Your task to perform on an android device: What is the recent news? Image 0: 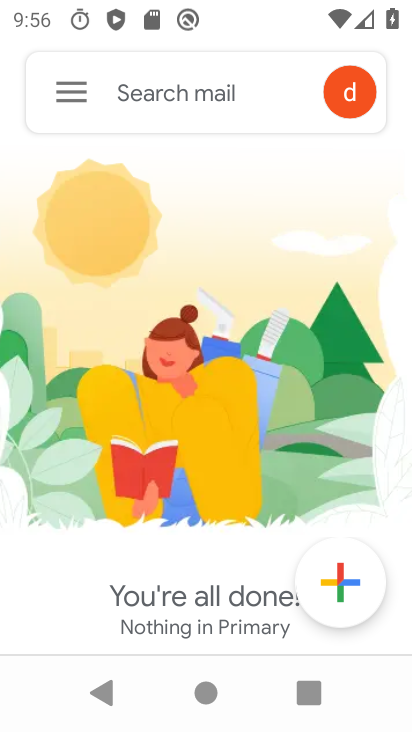
Step 0: drag from (211, 640) to (137, 228)
Your task to perform on an android device: What is the recent news? Image 1: 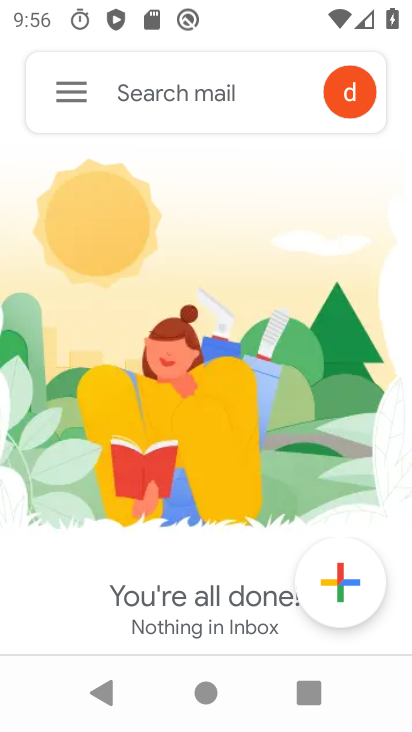
Step 1: press back button
Your task to perform on an android device: What is the recent news? Image 2: 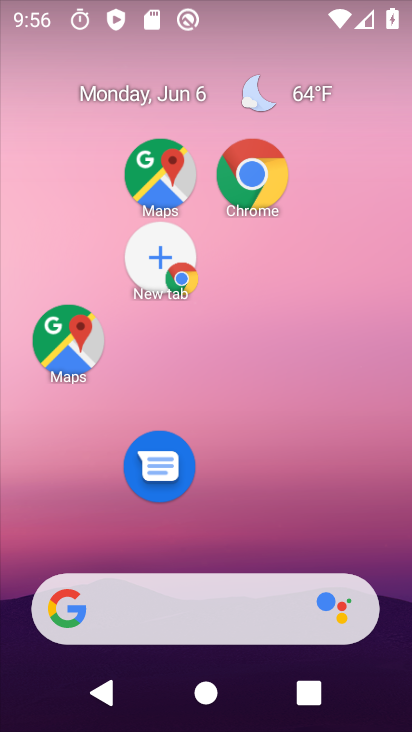
Step 2: drag from (7, 258) to (405, 349)
Your task to perform on an android device: What is the recent news? Image 3: 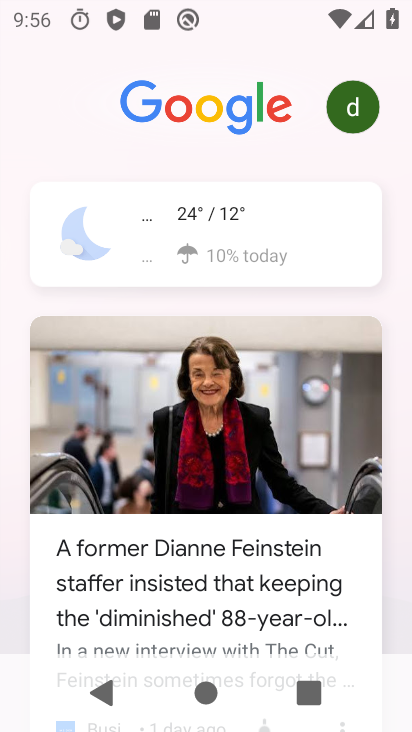
Step 3: drag from (204, 528) to (228, 177)
Your task to perform on an android device: What is the recent news? Image 4: 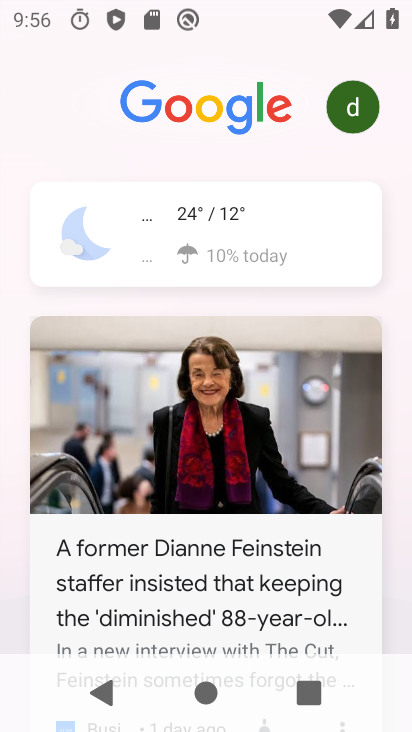
Step 4: drag from (210, 532) to (184, 298)
Your task to perform on an android device: What is the recent news? Image 5: 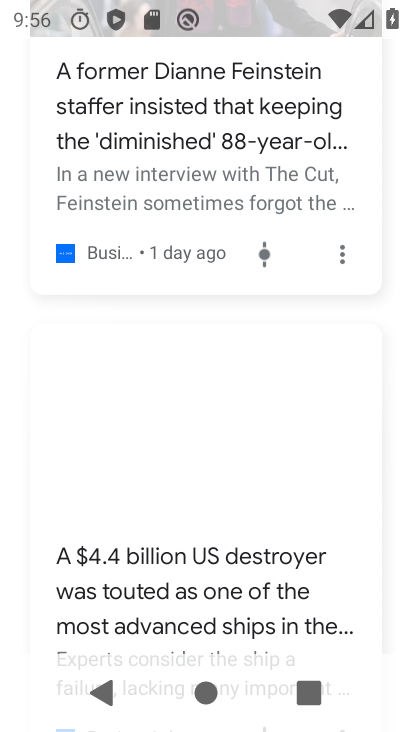
Step 5: drag from (196, 596) to (159, 164)
Your task to perform on an android device: What is the recent news? Image 6: 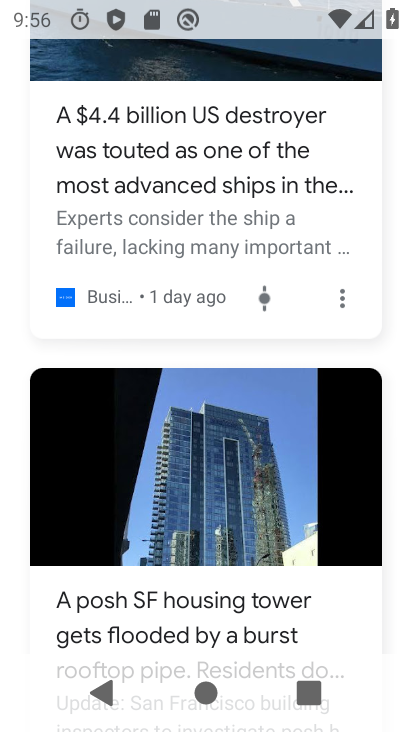
Step 6: drag from (193, 466) to (193, 152)
Your task to perform on an android device: What is the recent news? Image 7: 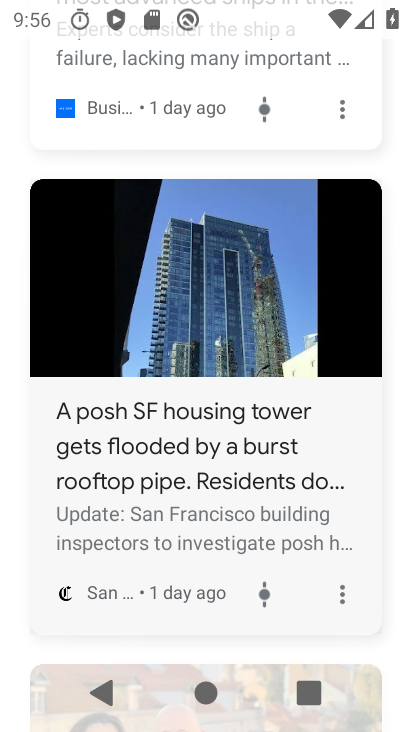
Step 7: drag from (242, 476) to (232, 198)
Your task to perform on an android device: What is the recent news? Image 8: 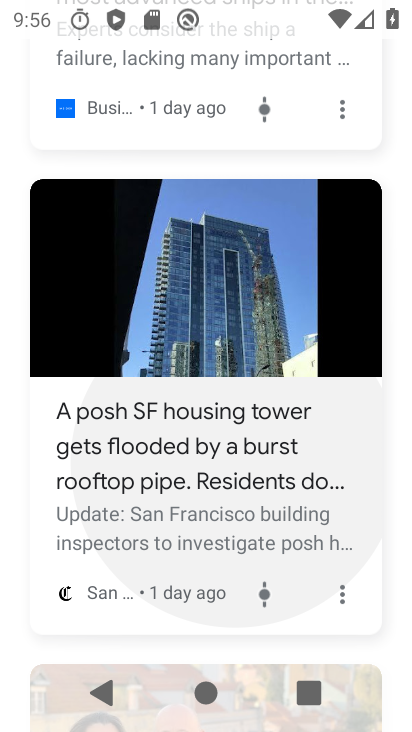
Step 8: drag from (221, 450) to (189, 101)
Your task to perform on an android device: What is the recent news? Image 9: 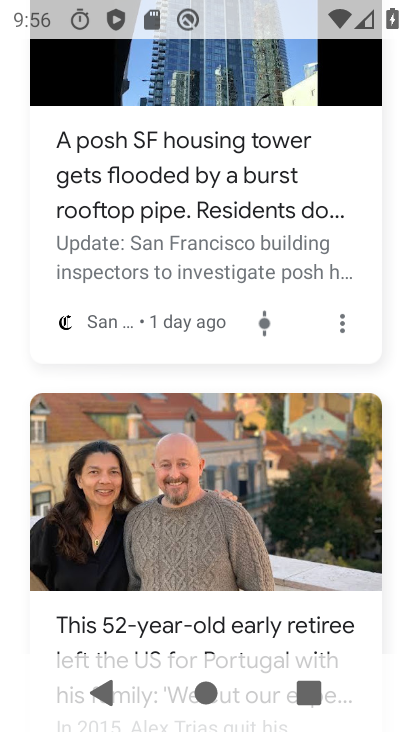
Step 9: drag from (242, 362) to (225, 130)
Your task to perform on an android device: What is the recent news? Image 10: 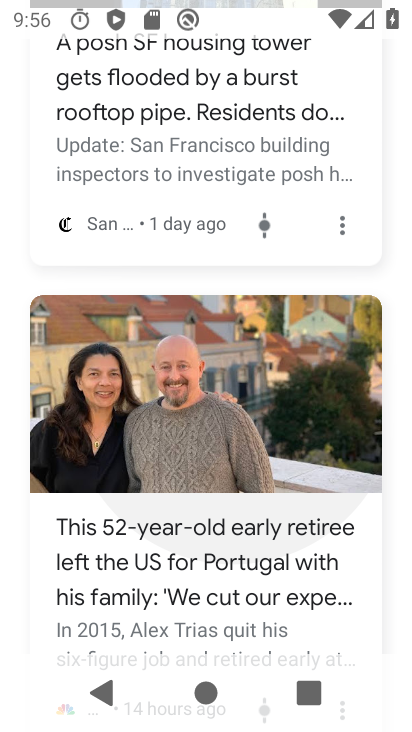
Step 10: drag from (206, 551) to (148, 205)
Your task to perform on an android device: What is the recent news? Image 11: 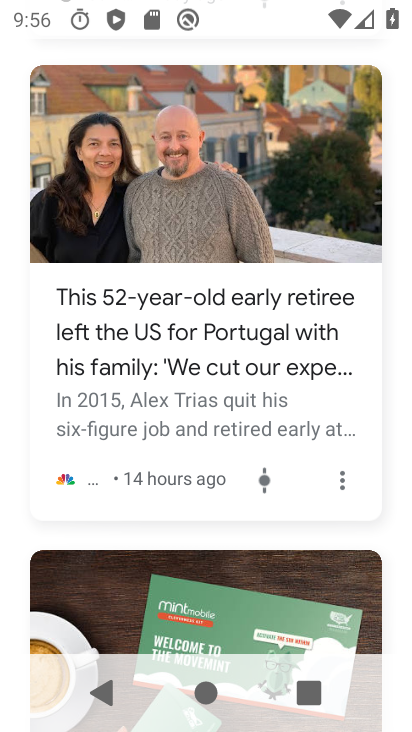
Step 11: click (124, 236)
Your task to perform on an android device: What is the recent news? Image 12: 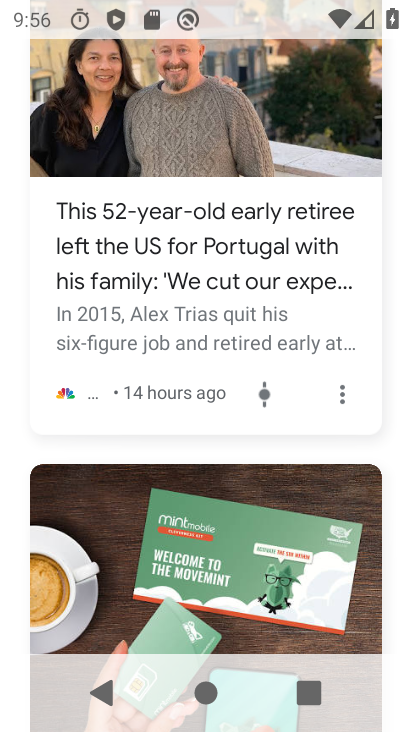
Step 12: click (188, 202)
Your task to perform on an android device: What is the recent news? Image 13: 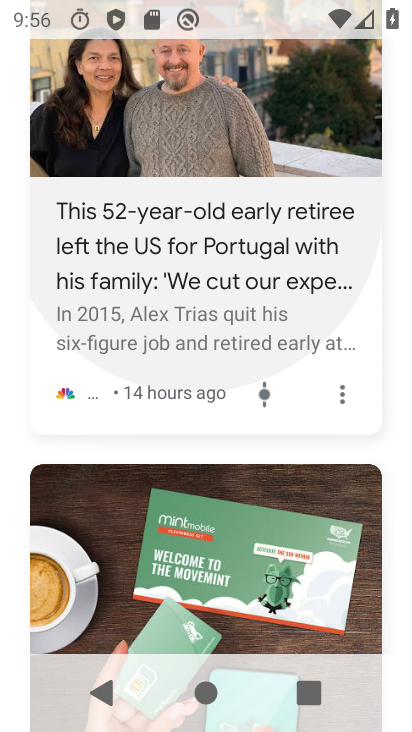
Step 13: click (127, 289)
Your task to perform on an android device: What is the recent news? Image 14: 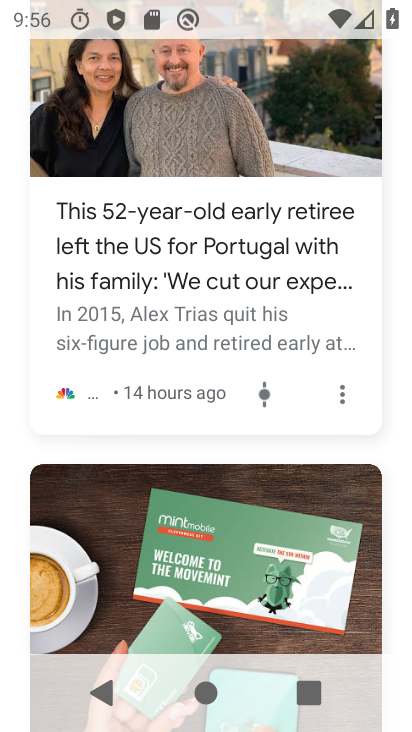
Step 14: task complete